Your task to perform on an android device: Add "usb-b" to the cart on bestbuy Image 0: 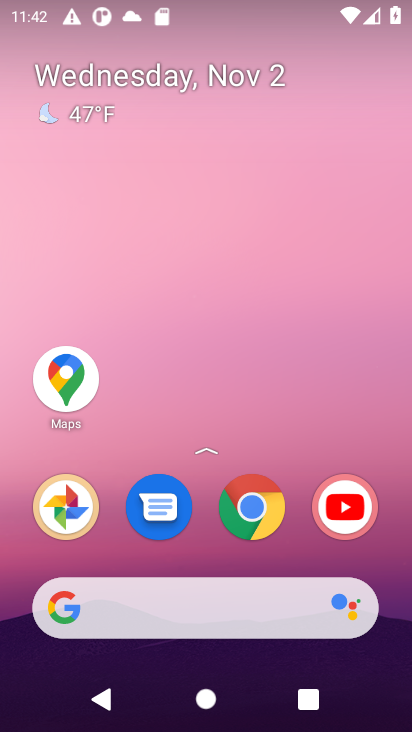
Step 0: click (222, 623)
Your task to perform on an android device: Add "usb-b" to the cart on bestbuy Image 1: 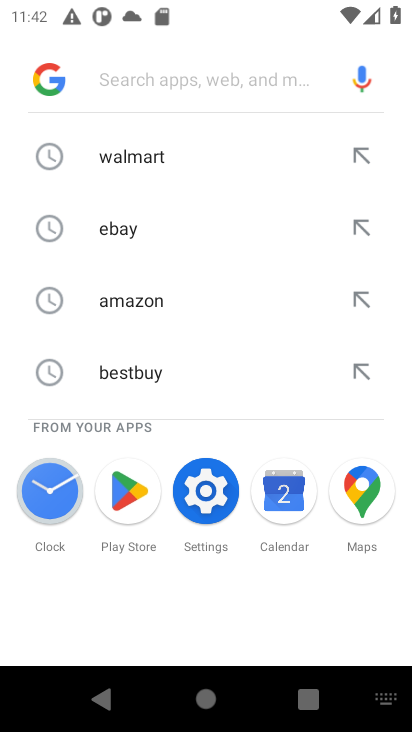
Step 1: click (130, 394)
Your task to perform on an android device: Add "usb-b" to the cart on bestbuy Image 2: 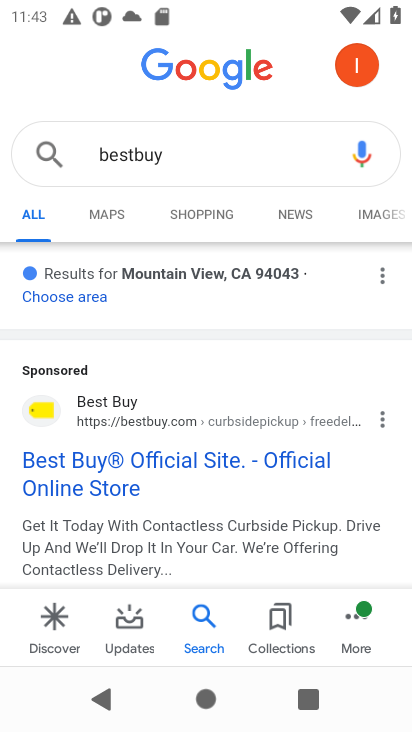
Step 2: click (201, 452)
Your task to perform on an android device: Add "usb-b" to the cart on bestbuy Image 3: 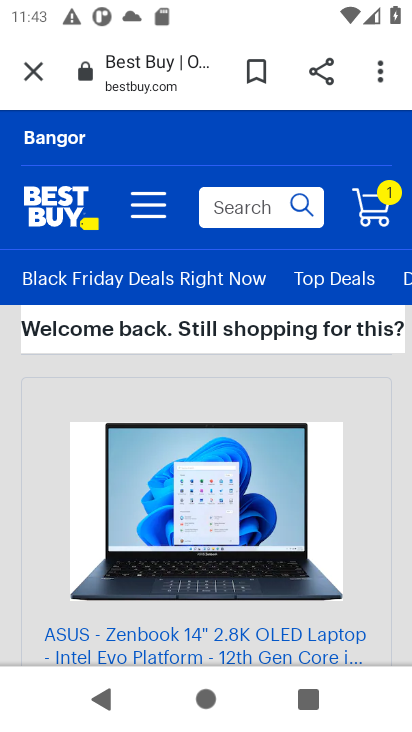
Step 3: click (231, 211)
Your task to perform on an android device: Add "usb-b" to the cart on bestbuy Image 4: 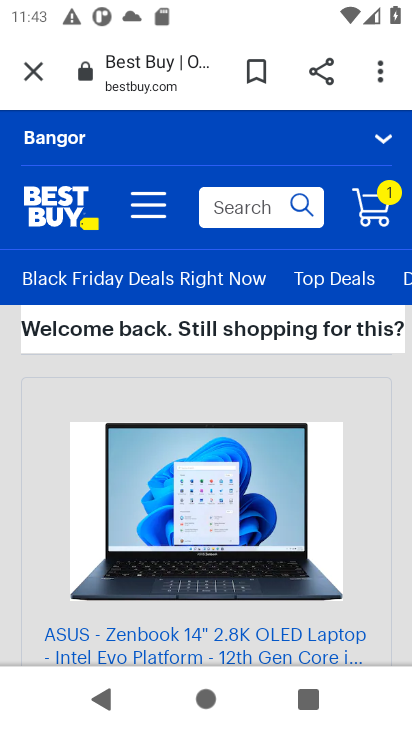
Step 4: type "ubd-b"
Your task to perform on an android device: Add "usb-b" to the cart on bestbuy Image 5: 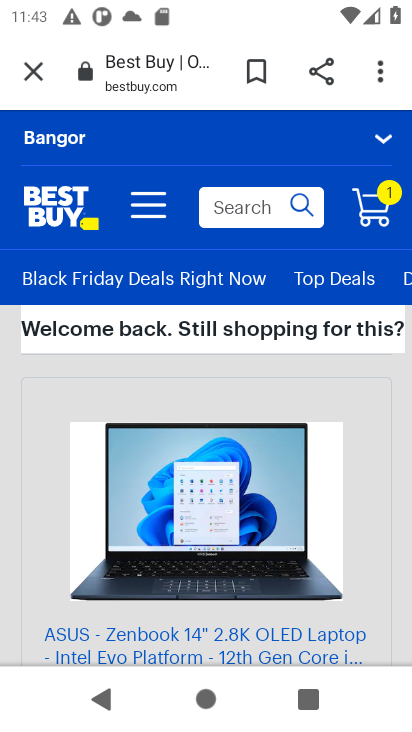
Step 5: task complete